Your task to perform on an android device: turn off data saver in the chrome app Image 0: 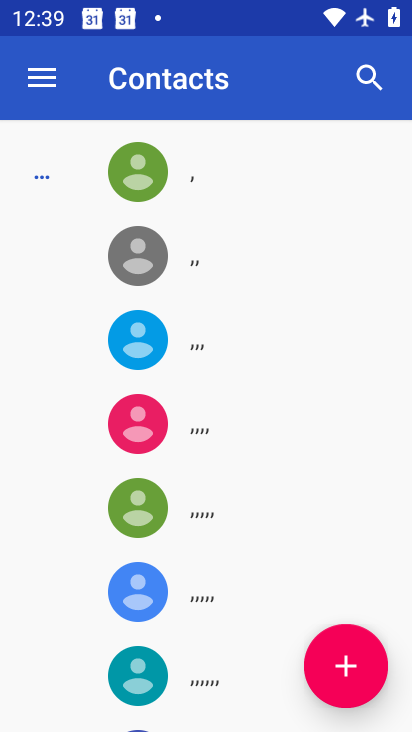
Step 0: press home button
Your task to perform on an android device: turn off data saver in the chrome app Image 1: 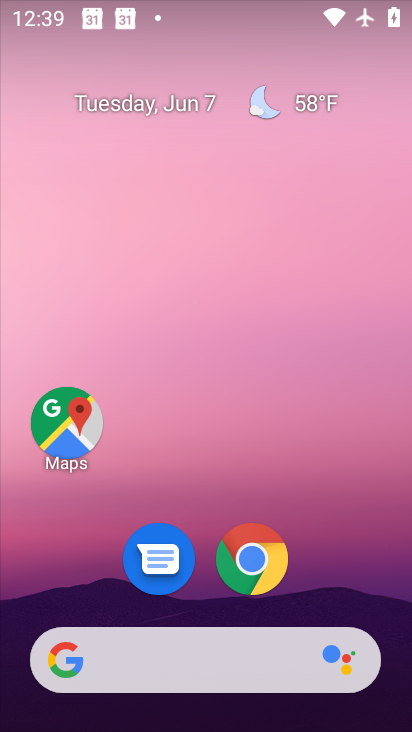
Step 1: click (252, 562)
Your task to perform on an android device: turn off data saver in the chrome app Image 2: 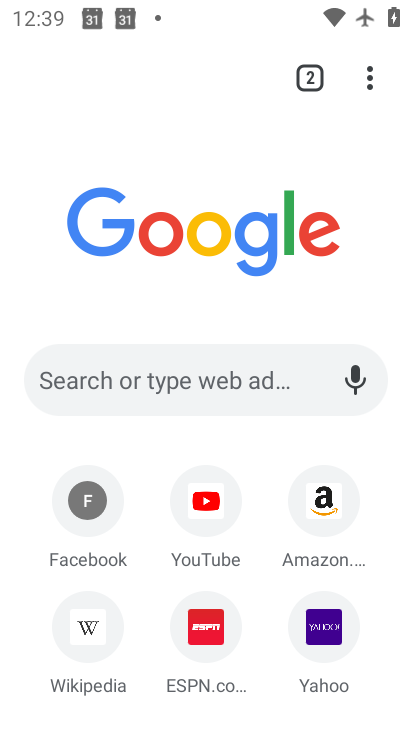
Step 2: click (366, 87)
Your task to perform on an android device: turn off data saver in the chrome app Image 3: 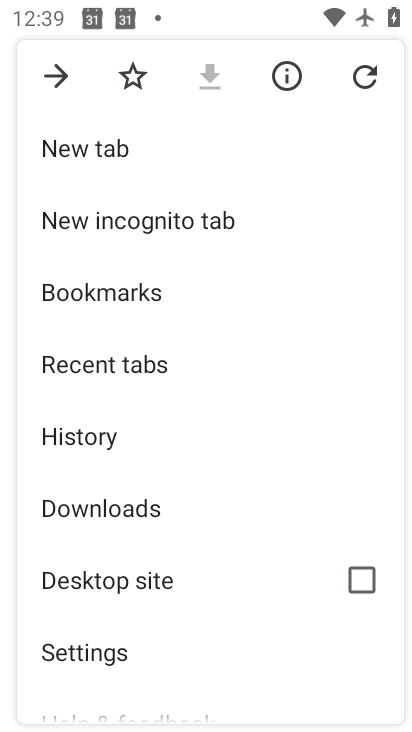
Step 3: click (122, 651)
Your task to perform on an android device: turn off data saver in the chrome app Image 4: 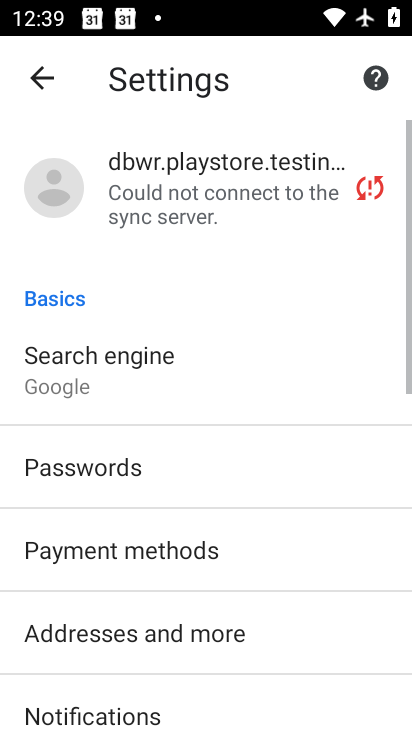
Step 4: drag from (271, 659) to (272, 187)
Your task to perform on an android device: turn off data saver in the chrome app Image 5: 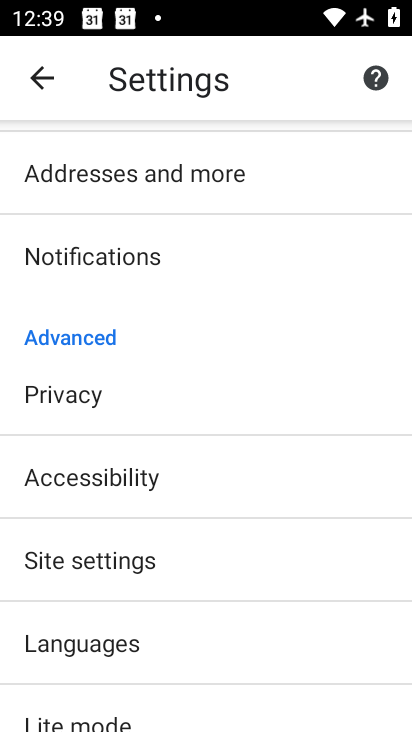
Step 5: drag from (212, 665) to (211, 374)
Your task to perform on an android device: turn off data saver in the chrome app Image 6: 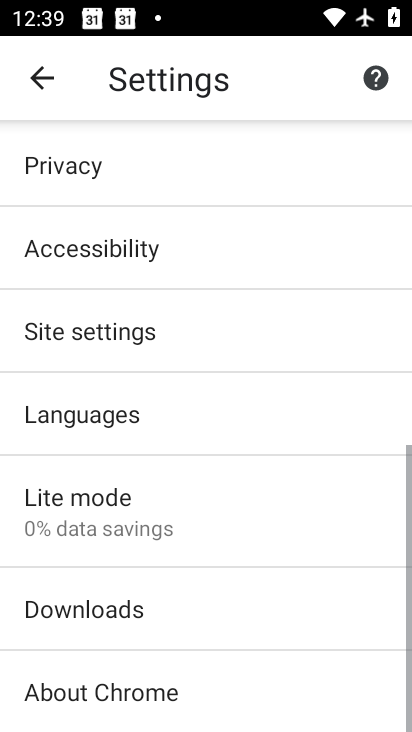
Step 6: click (64, 522)
Your task to perform on an android device: turn off data saver in the chrome app Image 7: 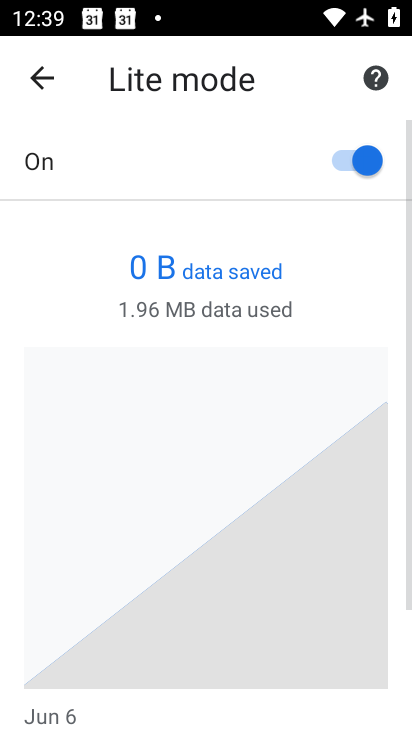
Step 7: click (344, 162)
Your task to perform on an android device: turn off data saver in the chrome app Image 8: 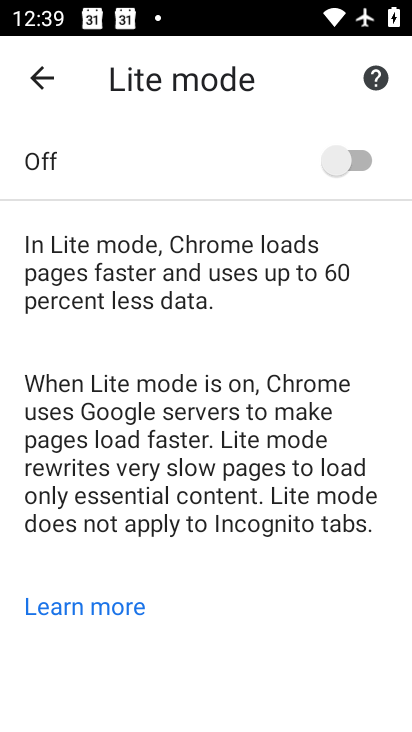
Step 8: task complete